Your task to perform on an android device: toggle notifications settings in the gmail app Image 0: 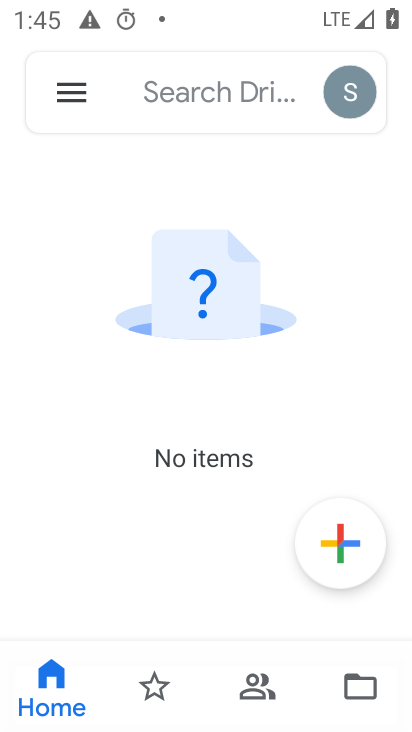
Step 0: press home button
Your task to perform on an android device: toggle notifications settings in the gmail app Image 1: 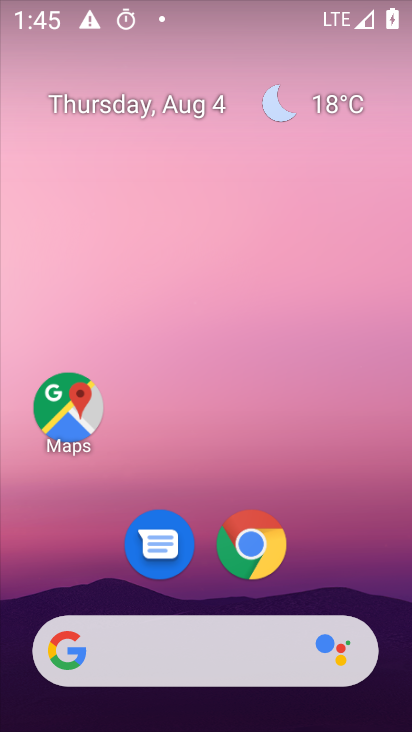
Step 1: drag from (399, 711) to (358, 89)
Your task to perform on an android device: toggle notifications settings in the gmail app Image 2: 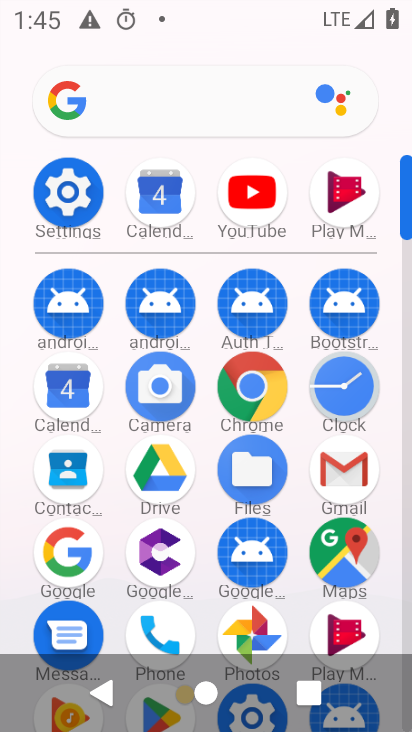
Step 2: click (358, 473)
Your task to perform on an android device: toggle notifications settings in the gmail app Image 3: 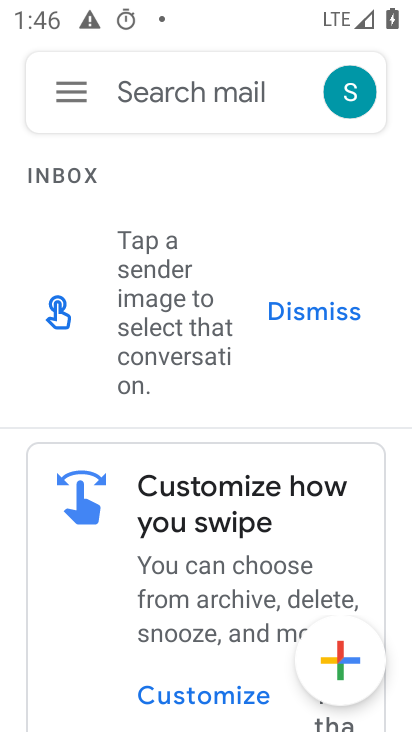
Step 3: click (71, 91)
Your task to perform on an android device: toggle notifications settings in the gmail app Image 4: 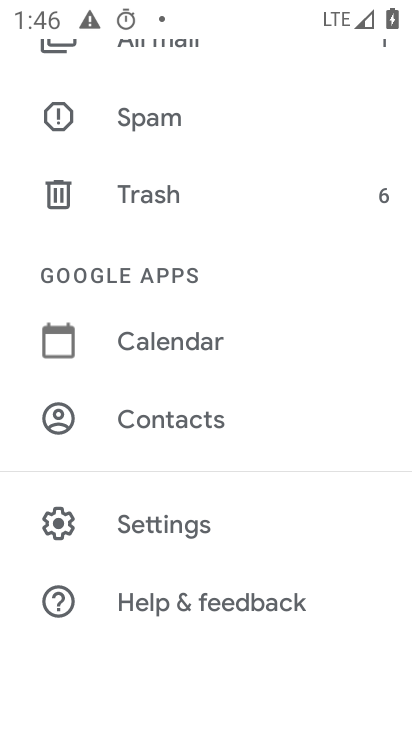
Step 4: click (201, 521)
Your task to perform on an android device: toggle notifications settings in the gmail app Image 5: 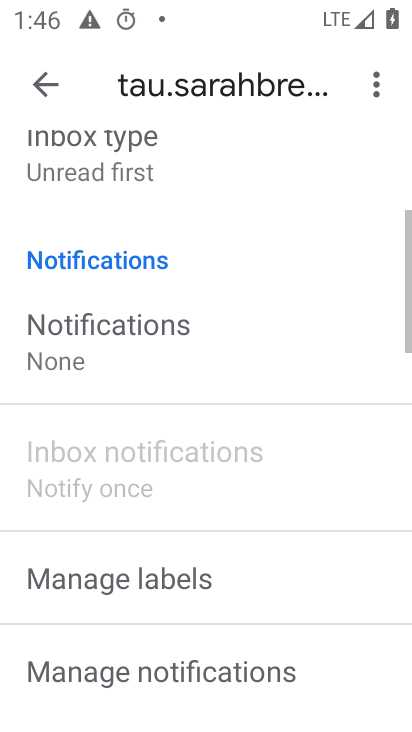
Step 5: click (123, 345)
Your task to perform on an android device: toggle notifications settings in the gmail app Image 6: 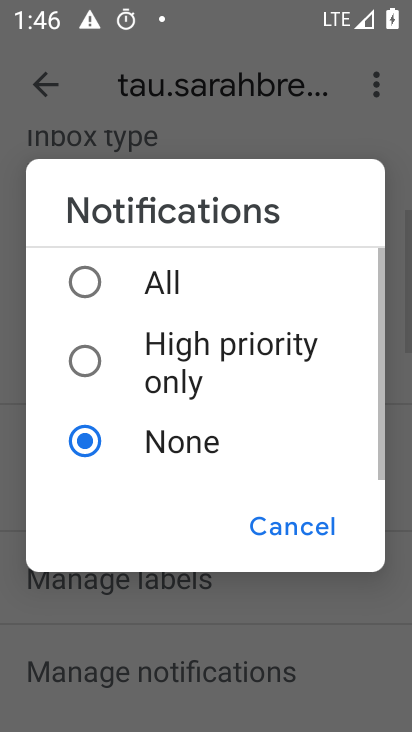
Step 6: click (90, 284)
Your task to perform on an android device: toggle notifications settings in the gmail app Image 7: 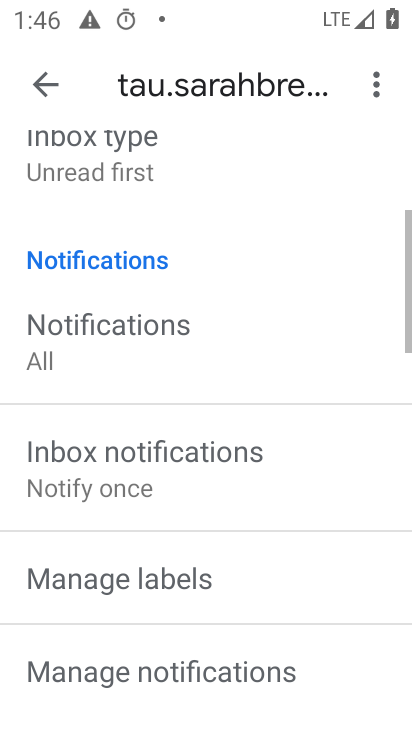
Step 7: task complete